Your task to perform on an android device: Go to network settings Image 0: 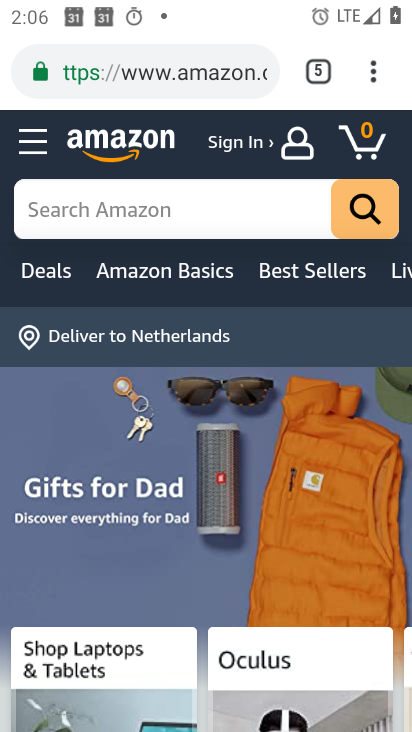
Step 0: press home button
Your task to perform on an android device: Go to network settings Image 1: 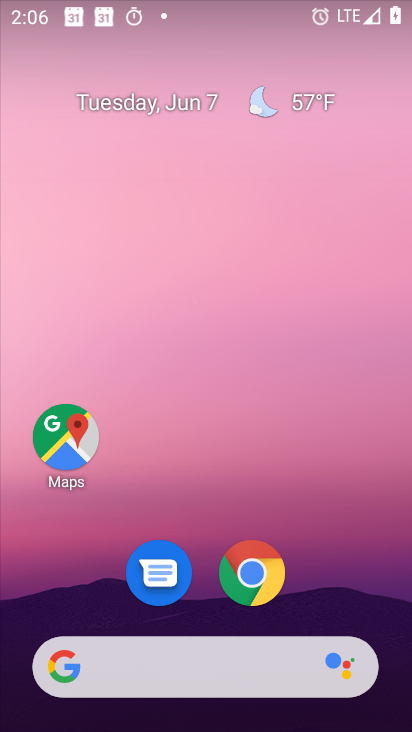
Step 1: drag from (308, 573) to (316, 124)
Your task to perform on an android device: Go to network settings Image 2: 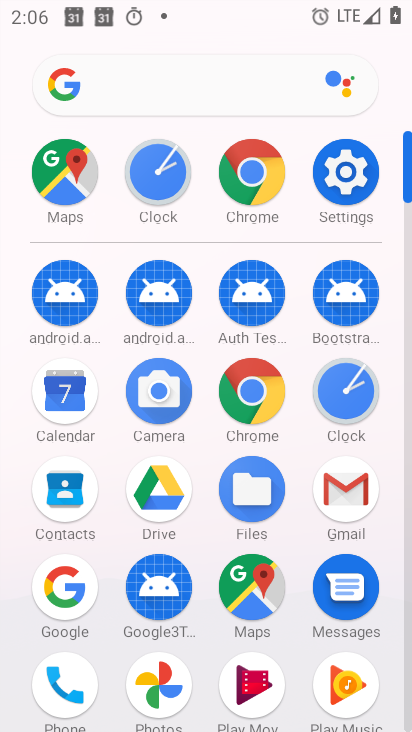
Step 2: click (346, 162)
Your task to perform on an android device: Go to network settings Image 3: 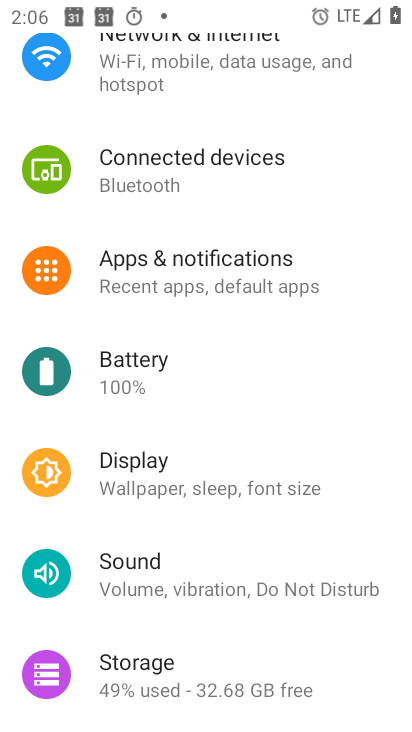
Step 3: drag from (217, 141) to (242, 572)
Your task to perform on an android device: Go to network settings Image 4: 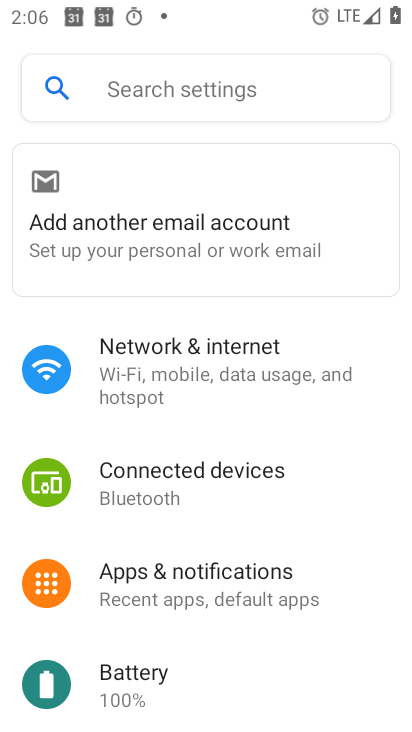
Step 4: click (218, 345)
Your task to perform on an android device: Go to network settings Image 5: 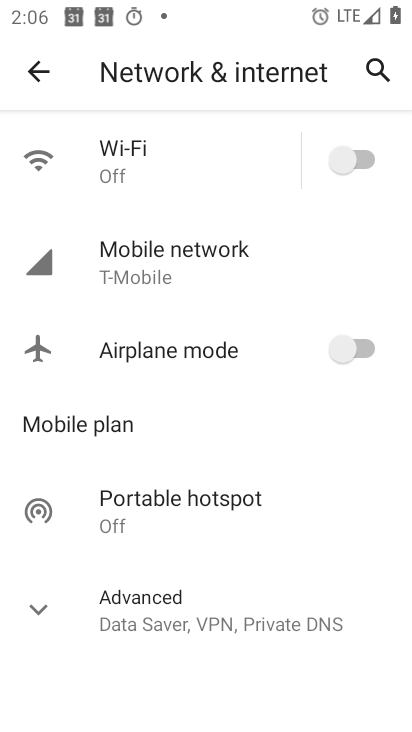
Step 5: task complete